Your task to perform on an android device: What is the recent news? Image 0: 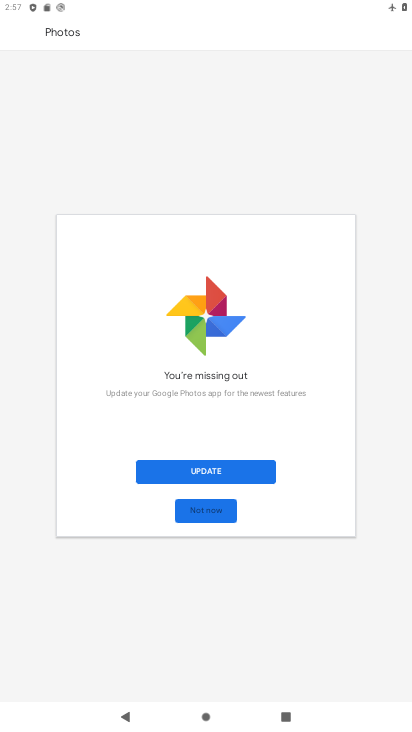
Step 0: press home button
Your task to perform on an android device: What is the recent news? Image 1: 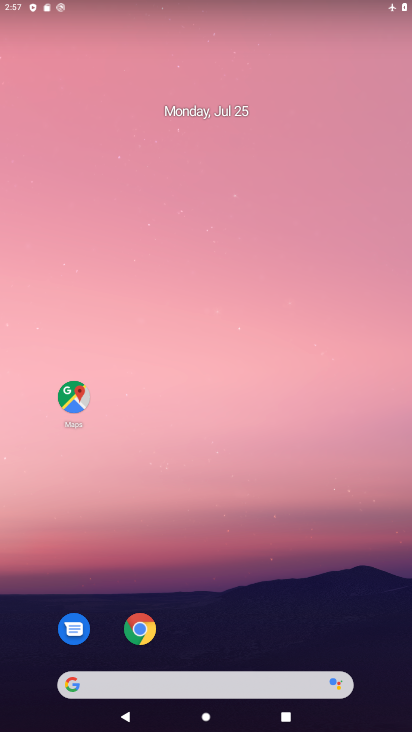
Step 1: click (151, 684)
Your task to perform on an android device: What is the recent news? Image 2: 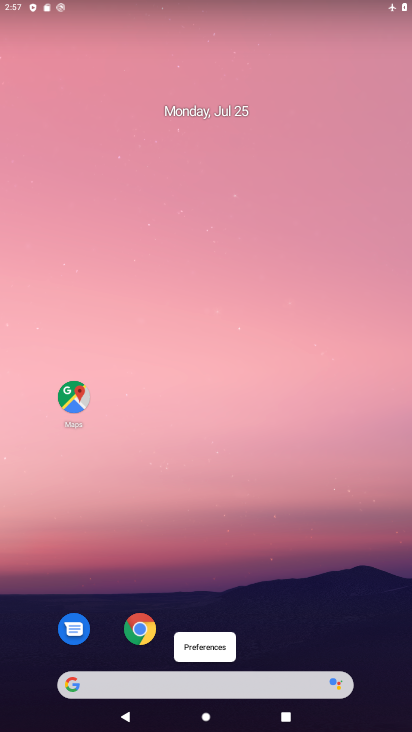
Step 2: click (109, 687)
Your task to perform on an android device: What is the recent news? Image 3: 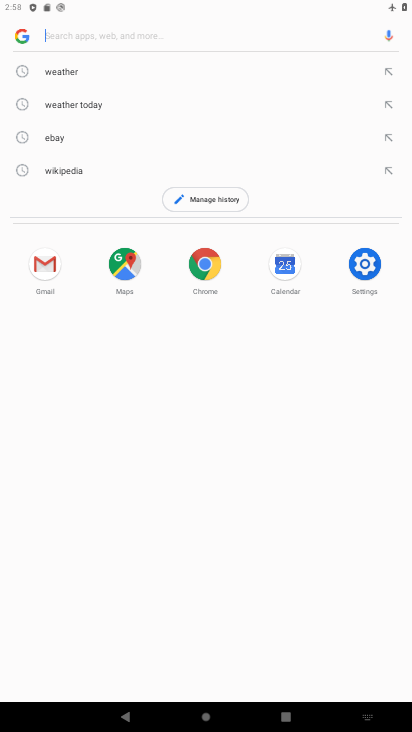
Step 3: type "recent news"
Your task to perform on an android device: What is the recent news? Image 4: 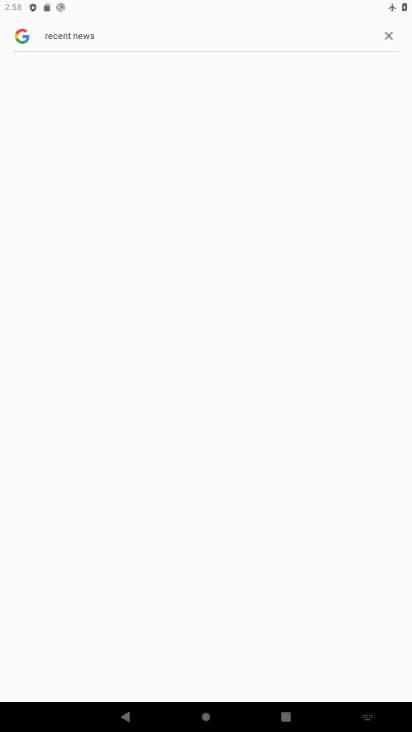
Step 4: task complete